Your task to perform on an android device: Go to display settings Image 0: 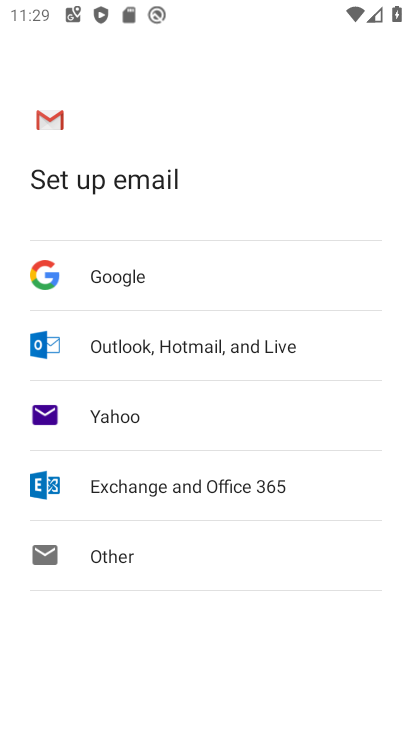
Step 0: press home button
Your task to perform on an android device: Go to display settings Image 1: 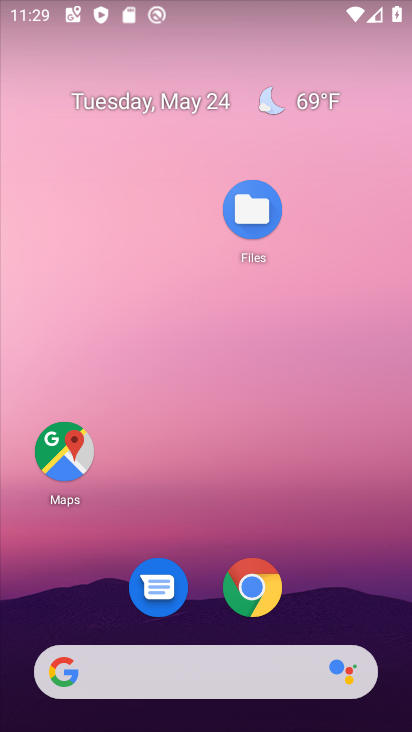
Step 1: drag from (321, 602) to (110, 140)
Your task to perform on an android device: Go to display settings Image 2: 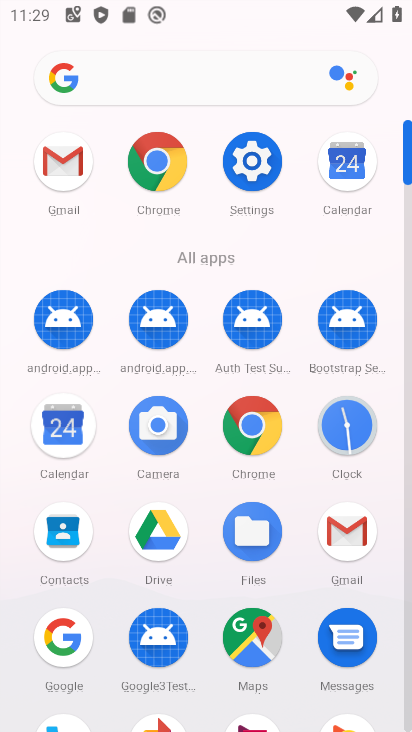
Step 2: click (251, 169)
Your task to perform on an android device: Go to display settings Image 3: 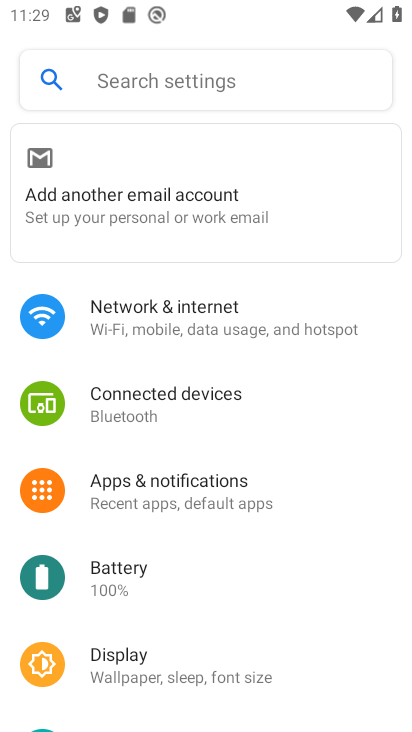
Step 3: click (103, 657)
Your task to perform on an android device: Go to display settings Image 4: 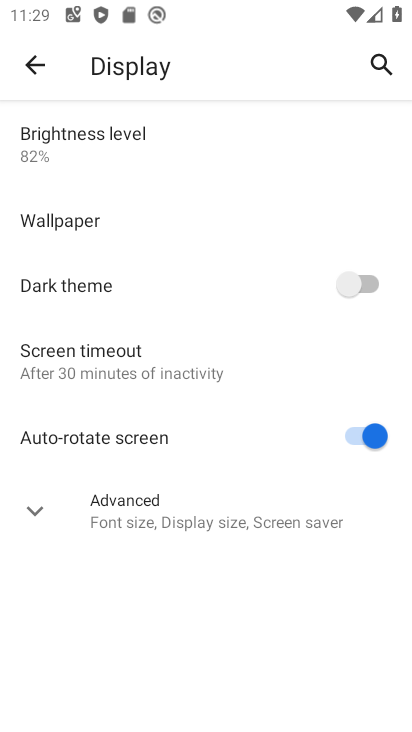
Step 4: click (143, 509)
Your task to perform on an android device: Go to display settings Image 5: 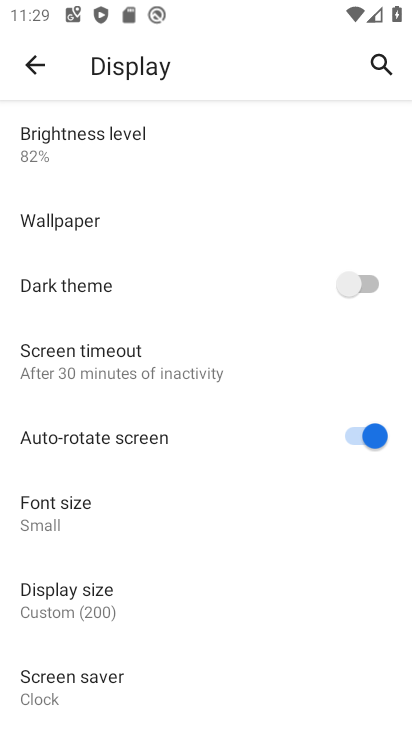
Step 5: task complete